Your task to perform on an android device: all mails in gmail Image 0: 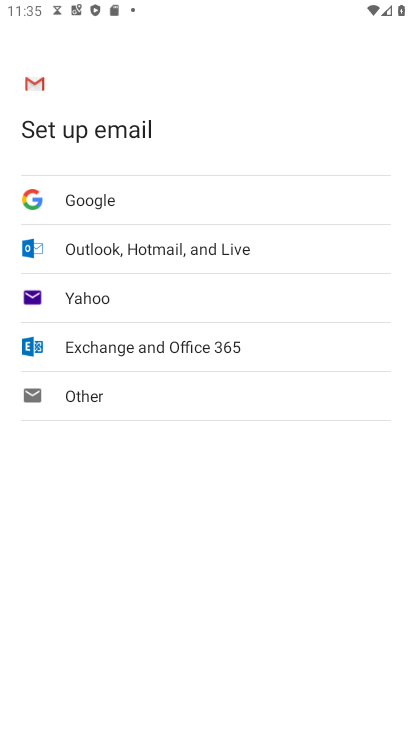
Step 0: press home button
Your task to perform on an android device: all mails in gmail Image 1: 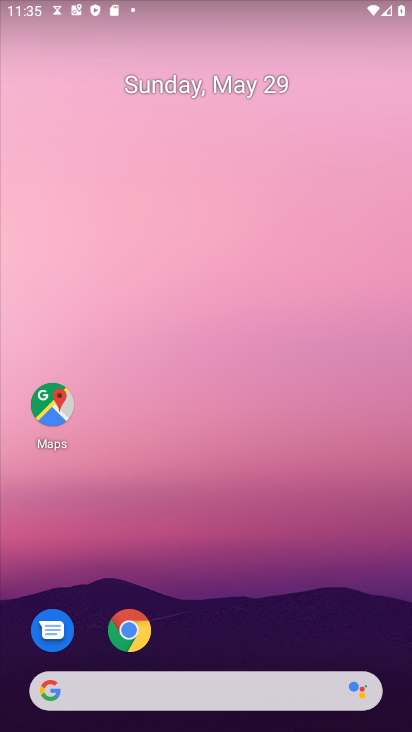
Step 1: drag from (280, 525) to (275, 15)
Your task to perform on an android device: all mails in gmail Image 2: 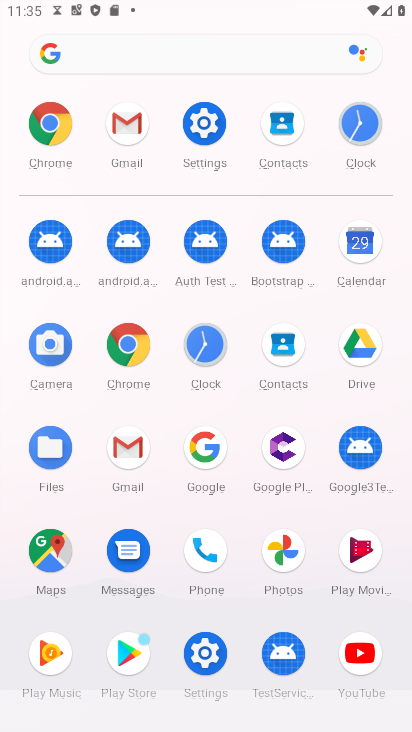
Step 2: click (130, 105)
Your task to perform on an android device: all mails in gmail Image 3: 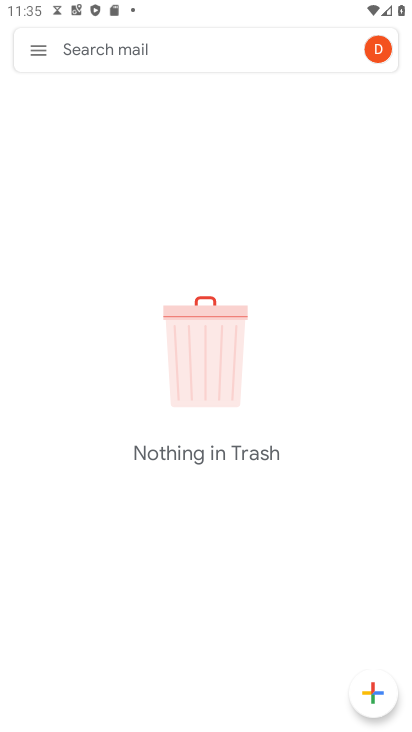
Step 3: click (44, 49)
Your task to perform on an android device: all mails in gmail Image 4: 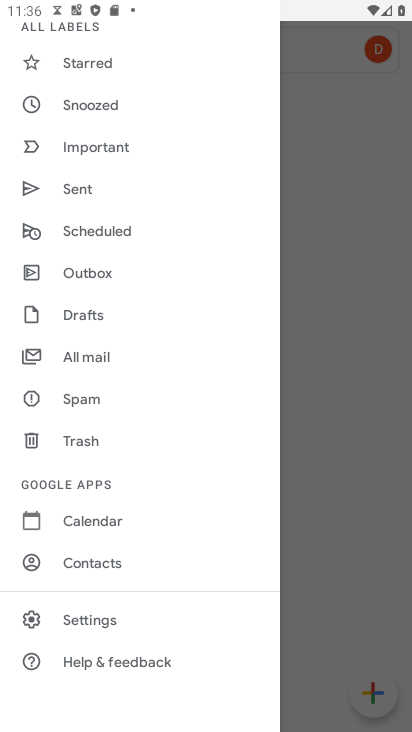
Step 4: click (88, 342)
Your task to perform on an android device: all mails in gmail Image 5: 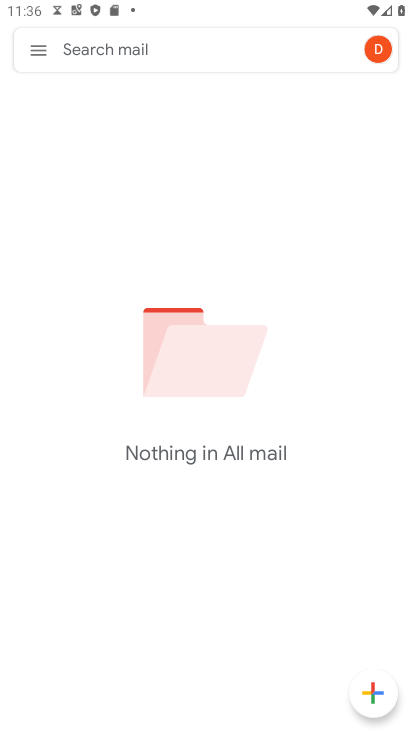
Step 5: task complete